Your task to perform on an android device: Go to calendar. Show me events next week Image 0: 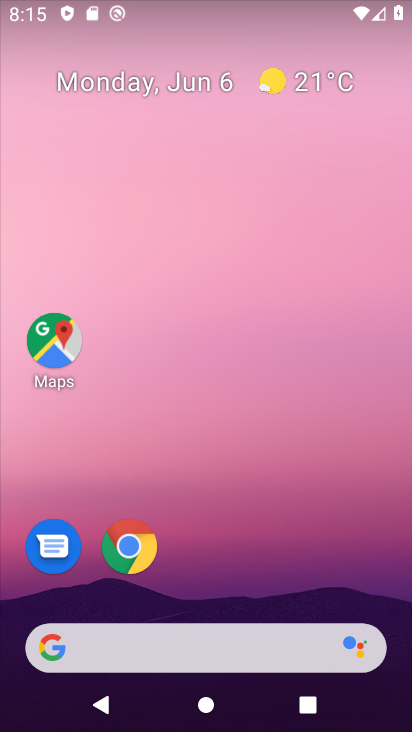
Step 0: task complete